Your task to perform on an android device: Open Youtube and go to the subscriptions tab Image 0: 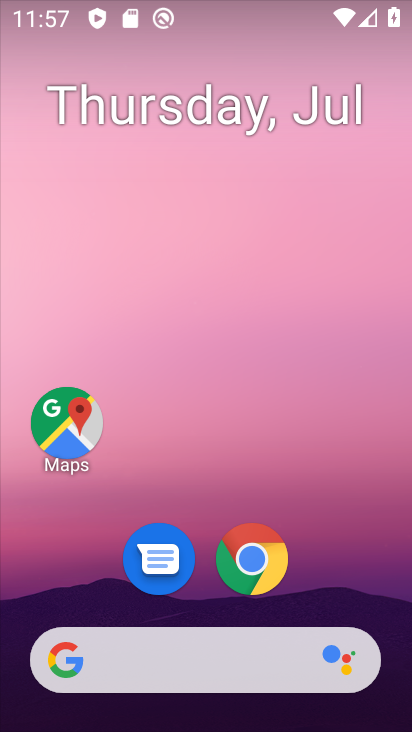
Step 0: drag from (349, 572) to (353, 68)
Your task to perform on an android device: Open Youtube and go to the subscriptions tab Image 1: 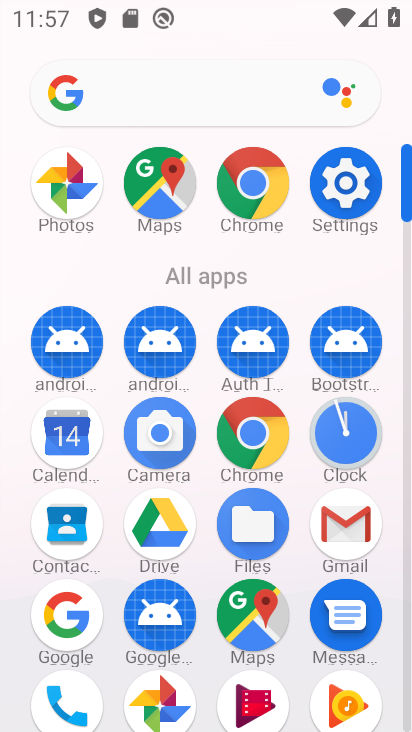
Step 1: drag from (386, 562) to (397, 316)
Your task to perform on an android device: Open Youtube and go to the subscriptions tab Image 2: 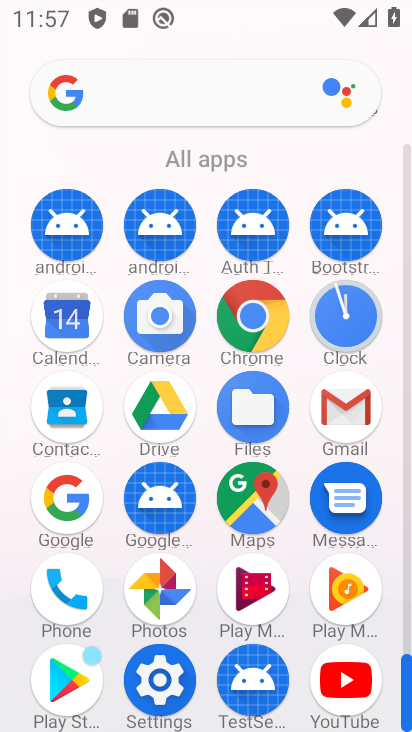
Step 2: click (353, 676)
Your task to perform on an android device: Open Youtube and go to the subscriptions tab Image 3: 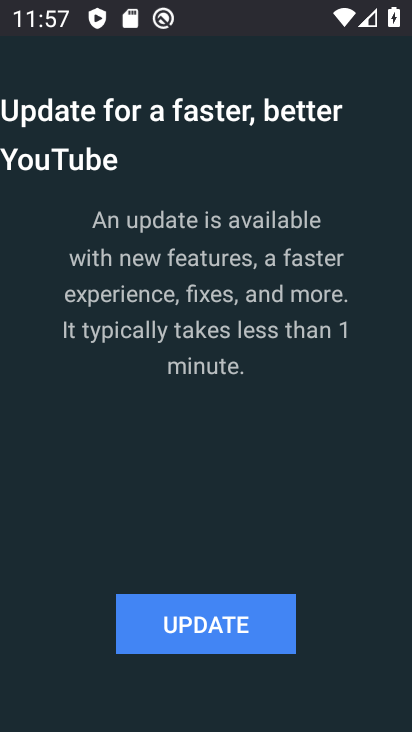
Step 3: click (278, 627)
Your task to perform on an android device: Open Youtube and go to the subscriptions tab Image 4: 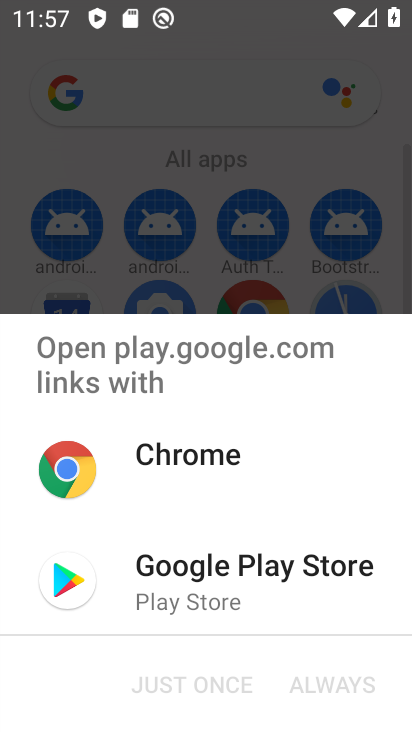
Step 4: click (202, 594)
Your task to perform on an android device: Open Youtube and go to the subscriptions tab Image 5: 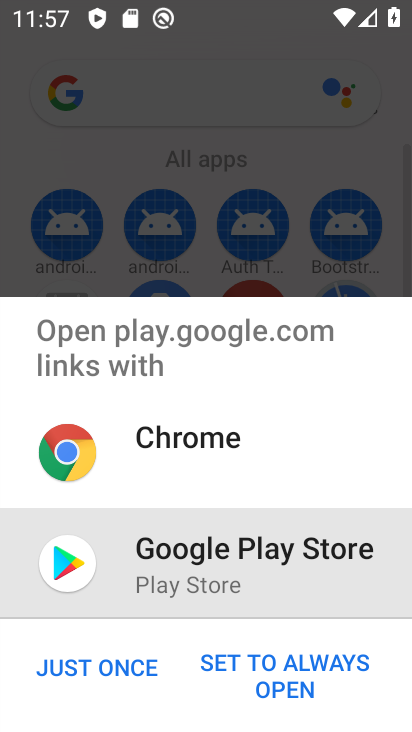
Step 5: click (138, 668)
Your task to perform on an android device: Open Youtube and go to the subscriptions tab Image 6: 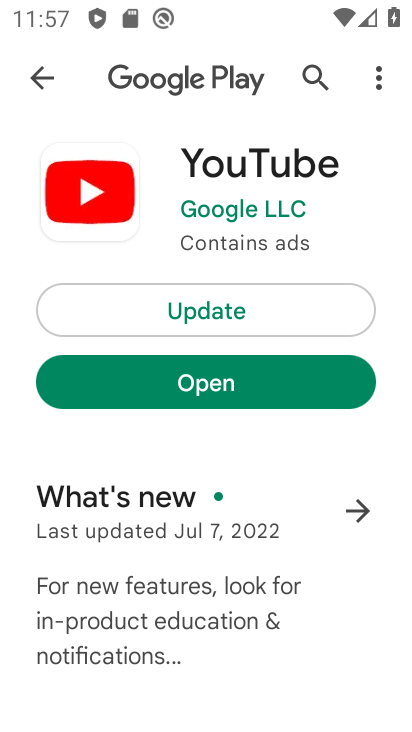
Step 6: click (304, 311)
Your task to perform on an android device: Open Youtube and go to the subscriptions tab Image 7: 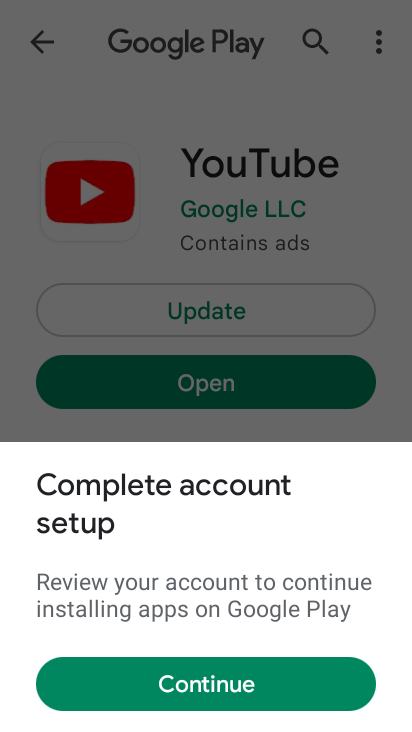
Step 7: click (243, 677)
Your task to perform on an android device: Open Youtube and go to the subscriptions tab Image 8: 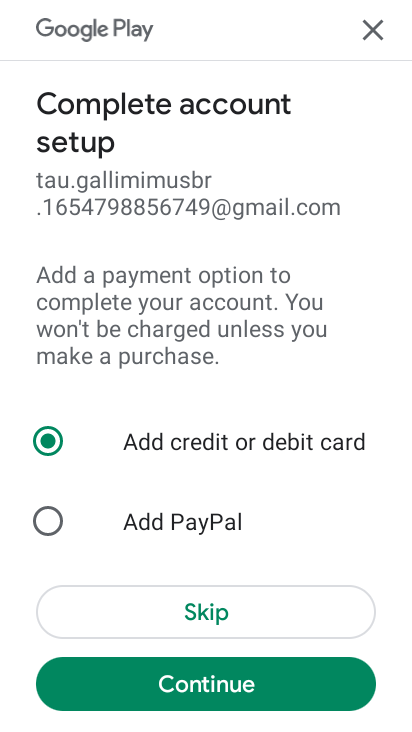
Step 8: click (201, 615)
Your task to perform on an android device: Open Youtube and go to the subscriptions tab Image 9: 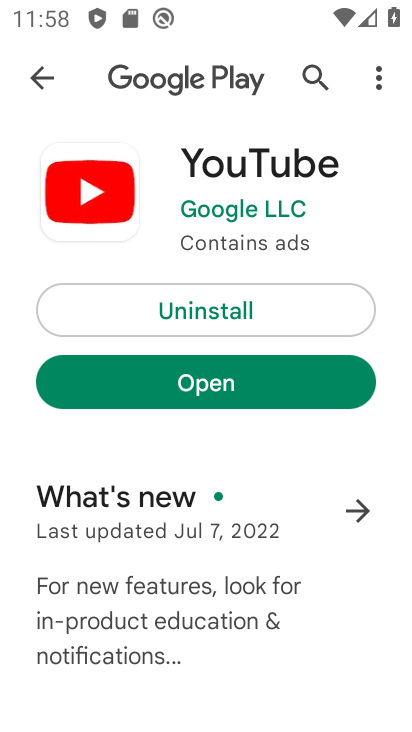
Step 9: click (266, 383)
Your task to perform on an android device: Open Youtube and go to the subscriptions tab Image 10: 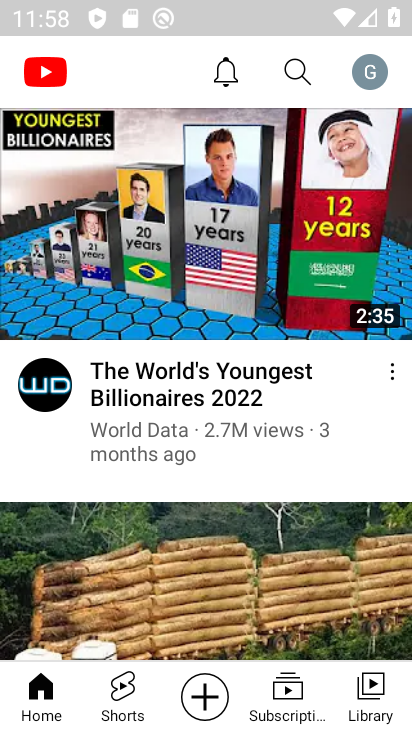
Step 10: click (284, 695)
Your task to perform on an android device: Open Youtube and go to the subscriptions tab Image 11: 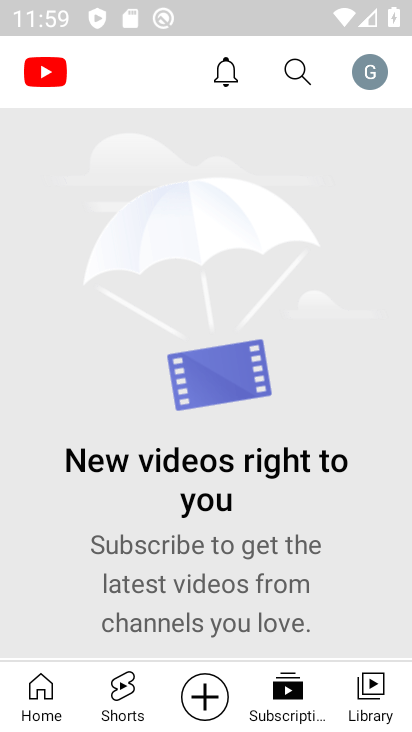
Step 11: task complete